Your task to perform on an android device: Show me recent news Image 0: 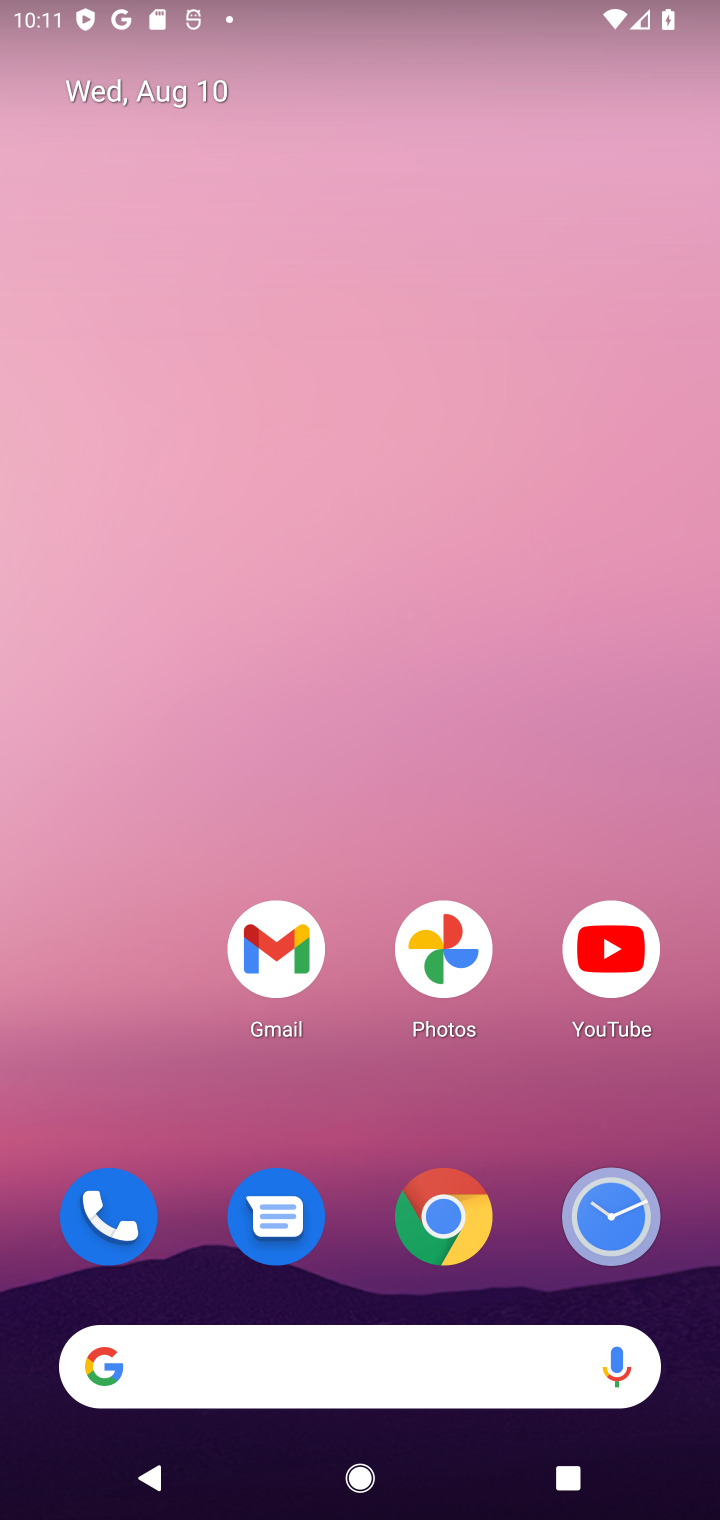
Step 0: click (184, 1375)
Your task to perform on an android device: Show me recent news Image 1: 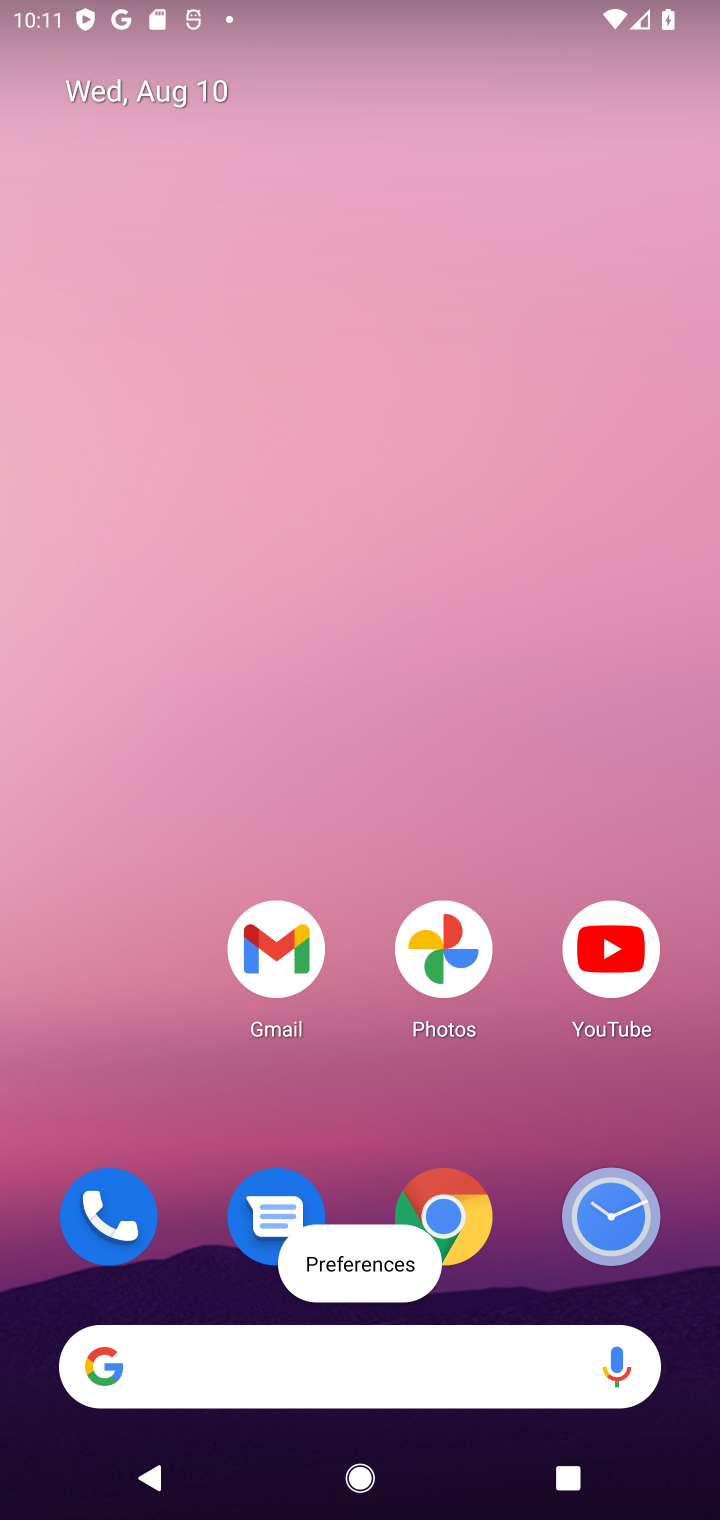
Step 1: click (184, 1375)
Your task to perform on an android device: Show me recent news Image 2: 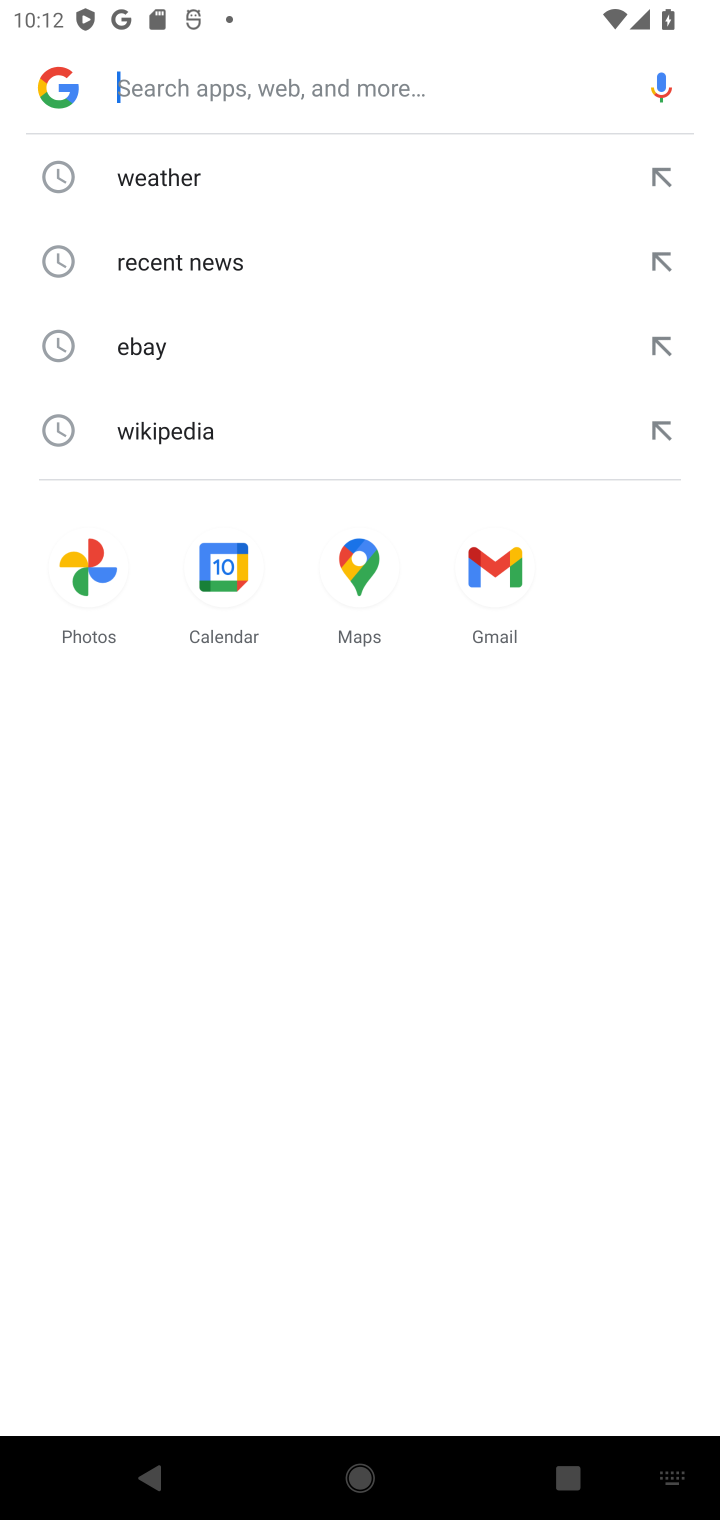
Step 2: click (166, 253)
Your task to perform on an android device: Show me recent news Image 3: 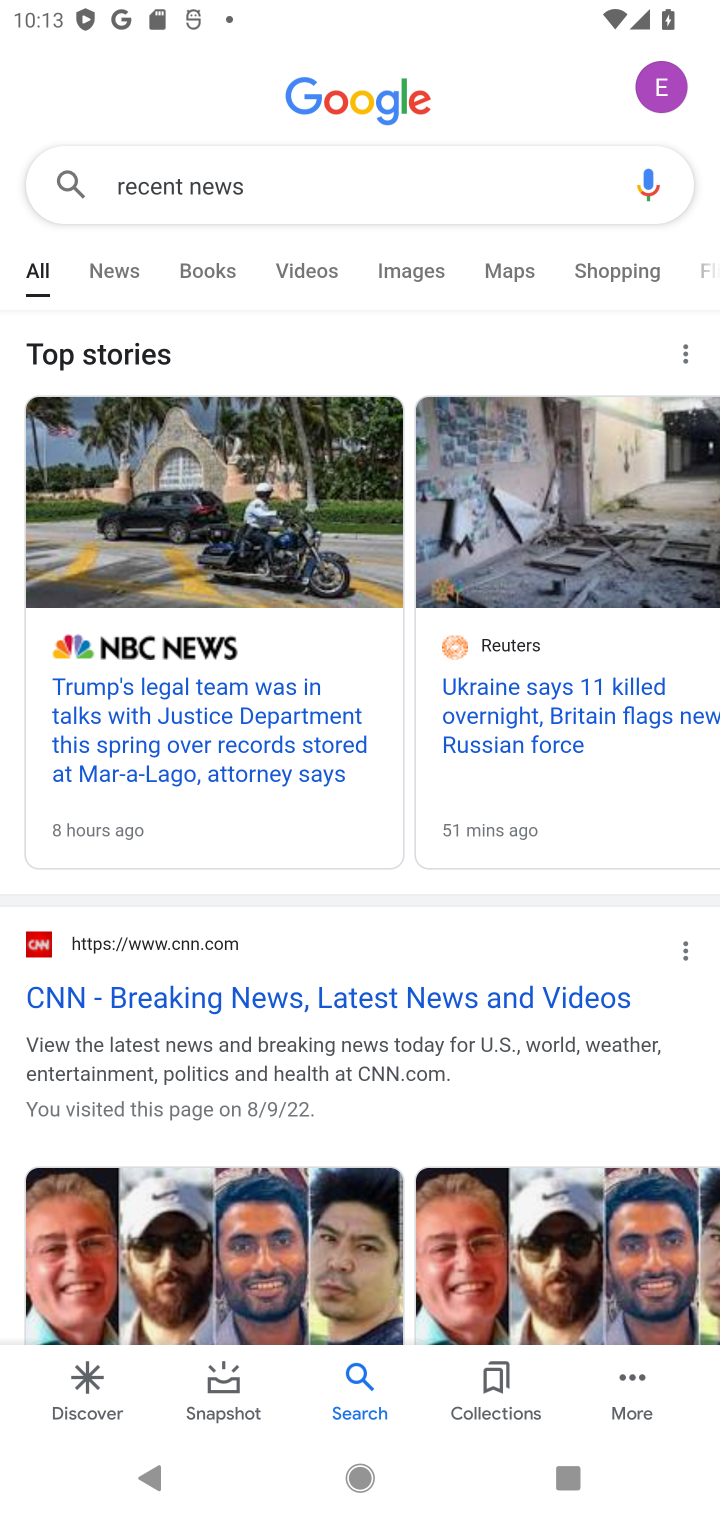
Step 3: task complete